Your task to perform on an android device: set the stopwatch Image 0: 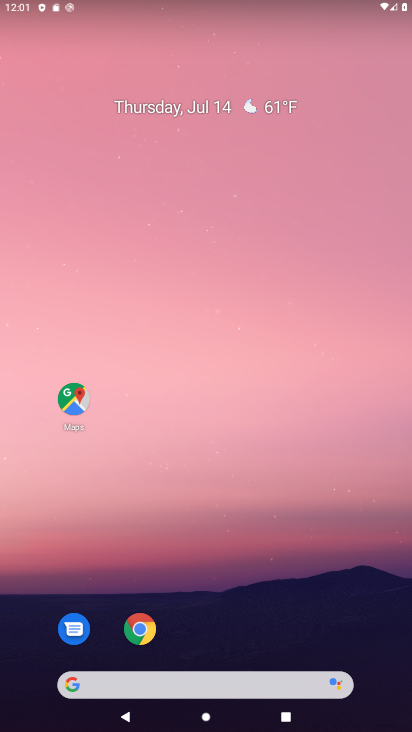
Step 0: drag from (276, 577) to (217, 116)
Your task to perform on an android device: set the stopwatch Image 1: 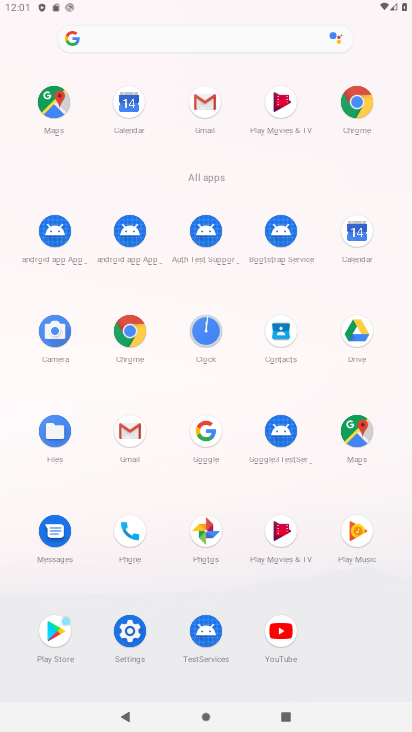
Step 1: click (208, 330)
Your task to perform on an android device: set the stopwatch Image 2: 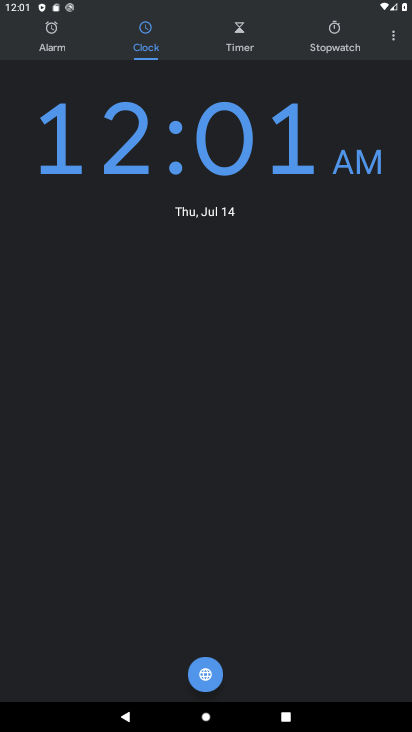
Step 2: click (334, 32)
Your task to perform on an android device: set the stopwatch Image 3: 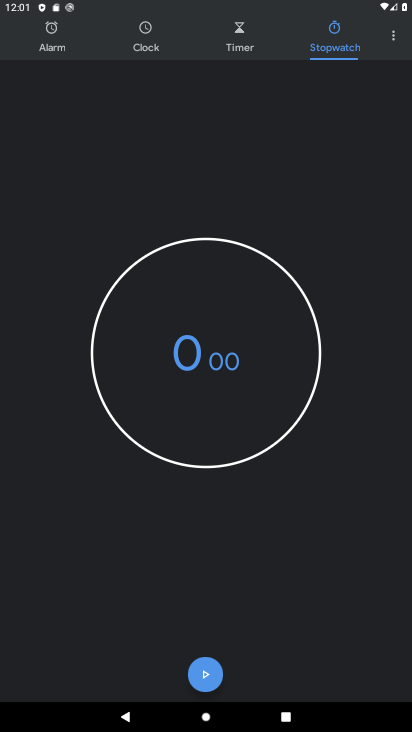
Step 3: task complete